Your task to perform on an android device: create a new album in the google photos Image 0: 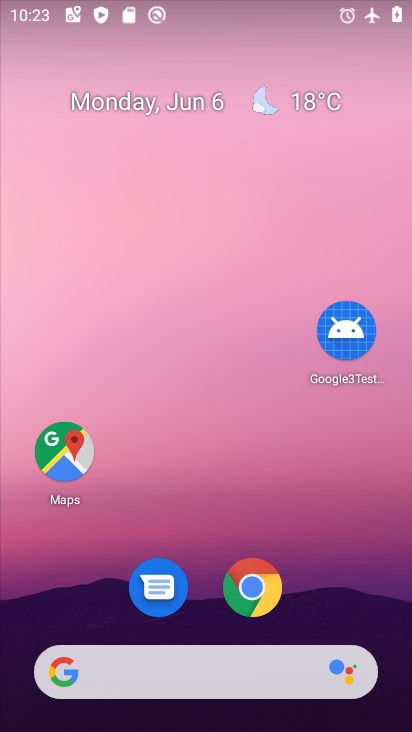
Step 0: drag from (359, 596) to (338, 86)
Your task to perform on an android device: create a new album in the google photos Image 1: 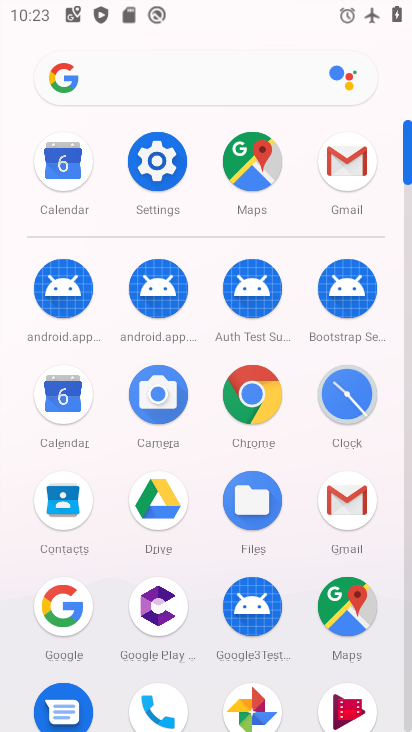
Step 1: click (244, 711)
Your task to perform on an android device: create a new album in the google photos Image 2: 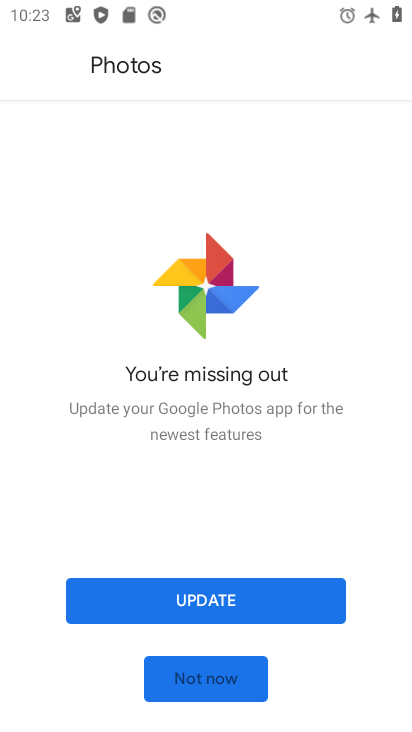
Step 2: click (206, 603)
Your task to perform on an android device: create a new album in the google photos Image 3: 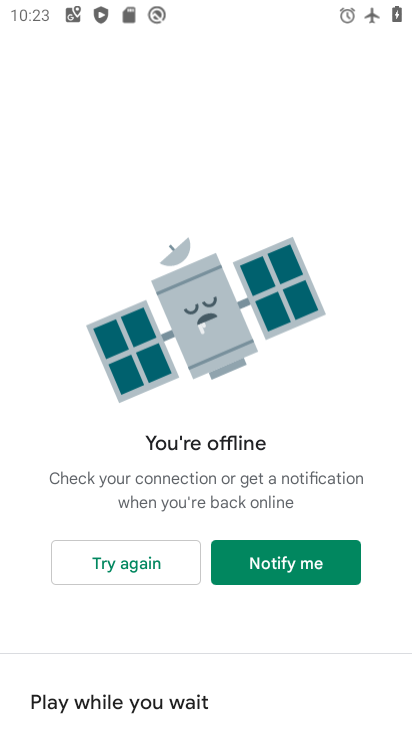
Step 3: task complete